Your task to perform on an android device: Show the shopping cart on walmart. Search for macbook pro 15 inch on walmart, select the first entry, and add it to the cart. Image 0: 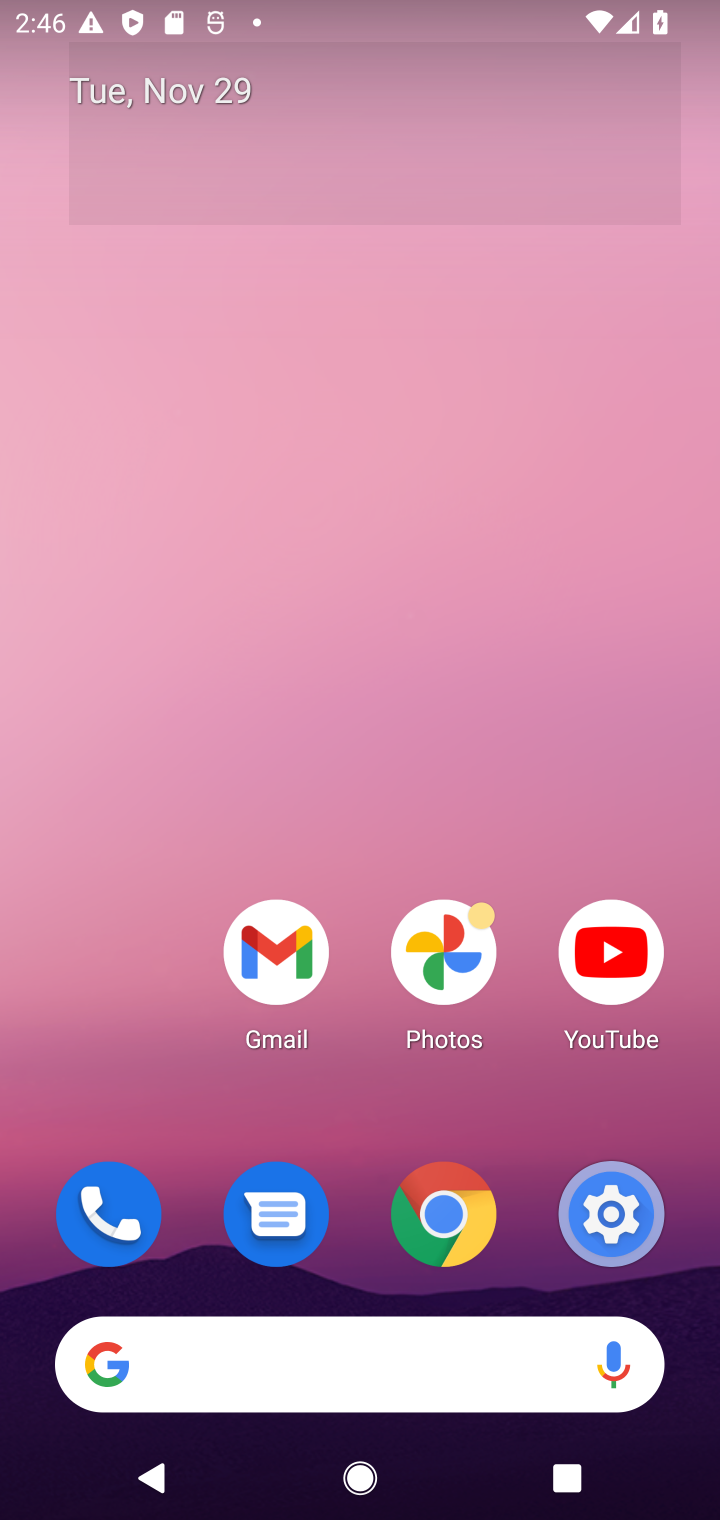
Step 0: click (278, 1337)
Your task to perform on an android device: Show the shopping cart on walmart. Search for macbook pro 15 inch on walmart, select the first entry, and add it to the cart. Image 1: 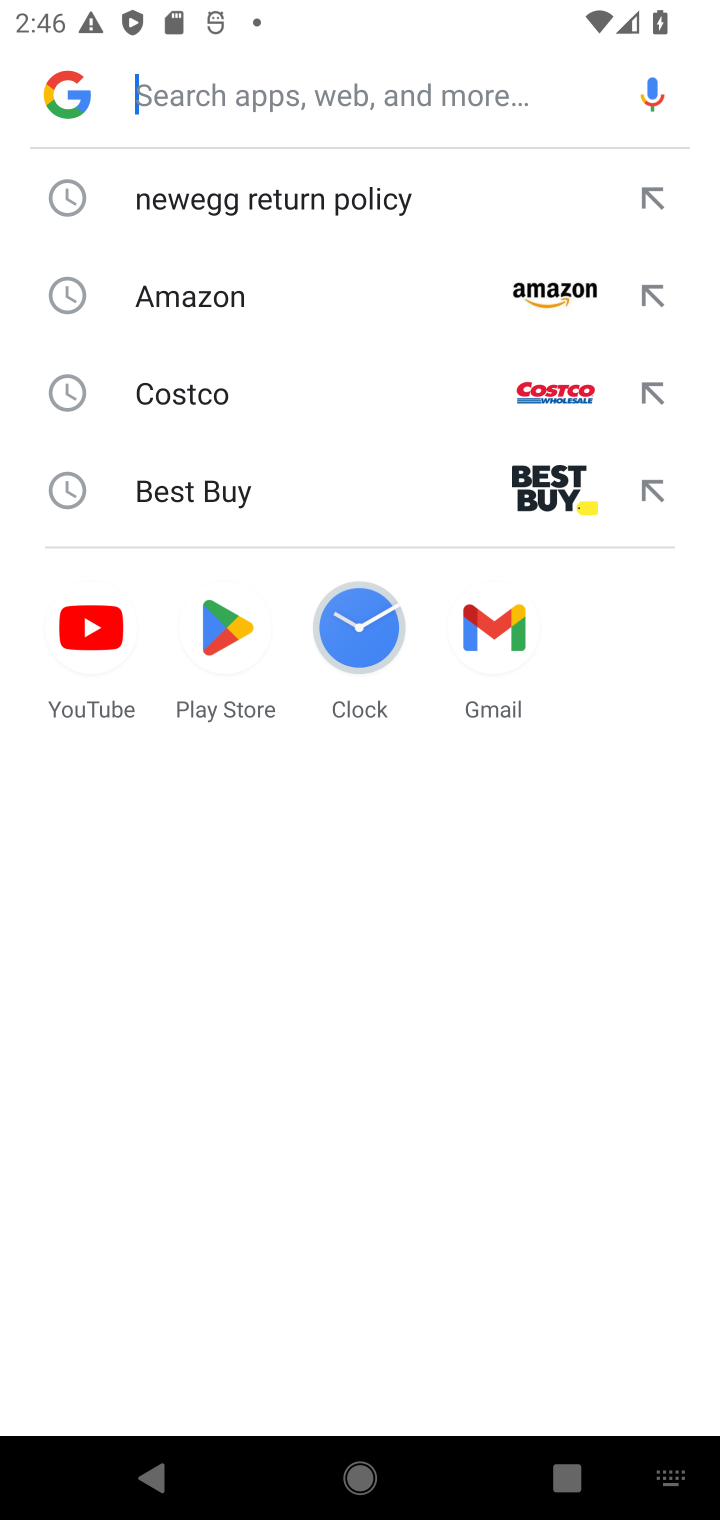
Step 1: type "walmart"
Your task to perform on an android device: Show the shopping cart on walmart. Search for macbook pro 15 inch on walmart, select the first entry, and add it to the cart. Image 2: 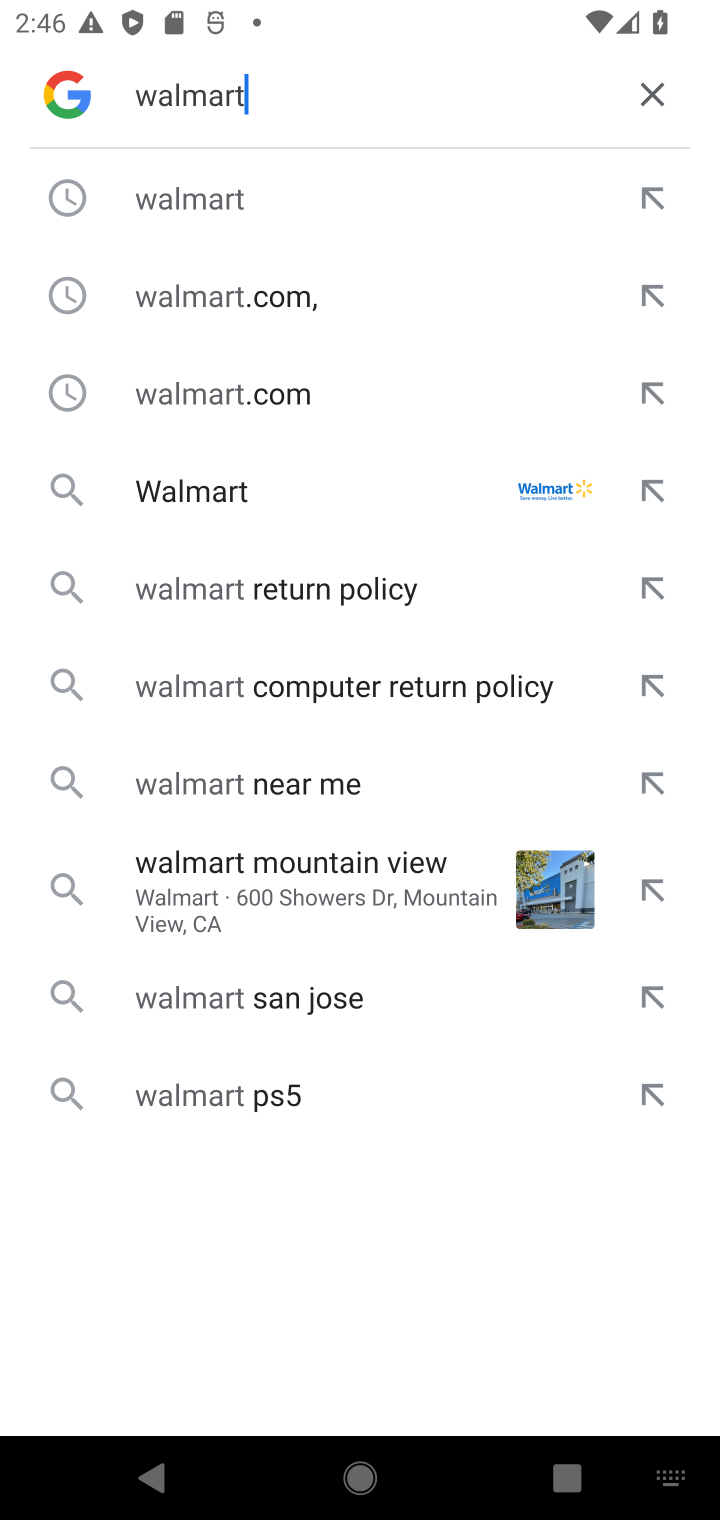
Step 2: click (304, 234)
Your task to perform on an android device: Show the shopping cart on walmart. Search for macbook pro 15 inch on walmart, select the first entry, and add it to the cart. Image 3: 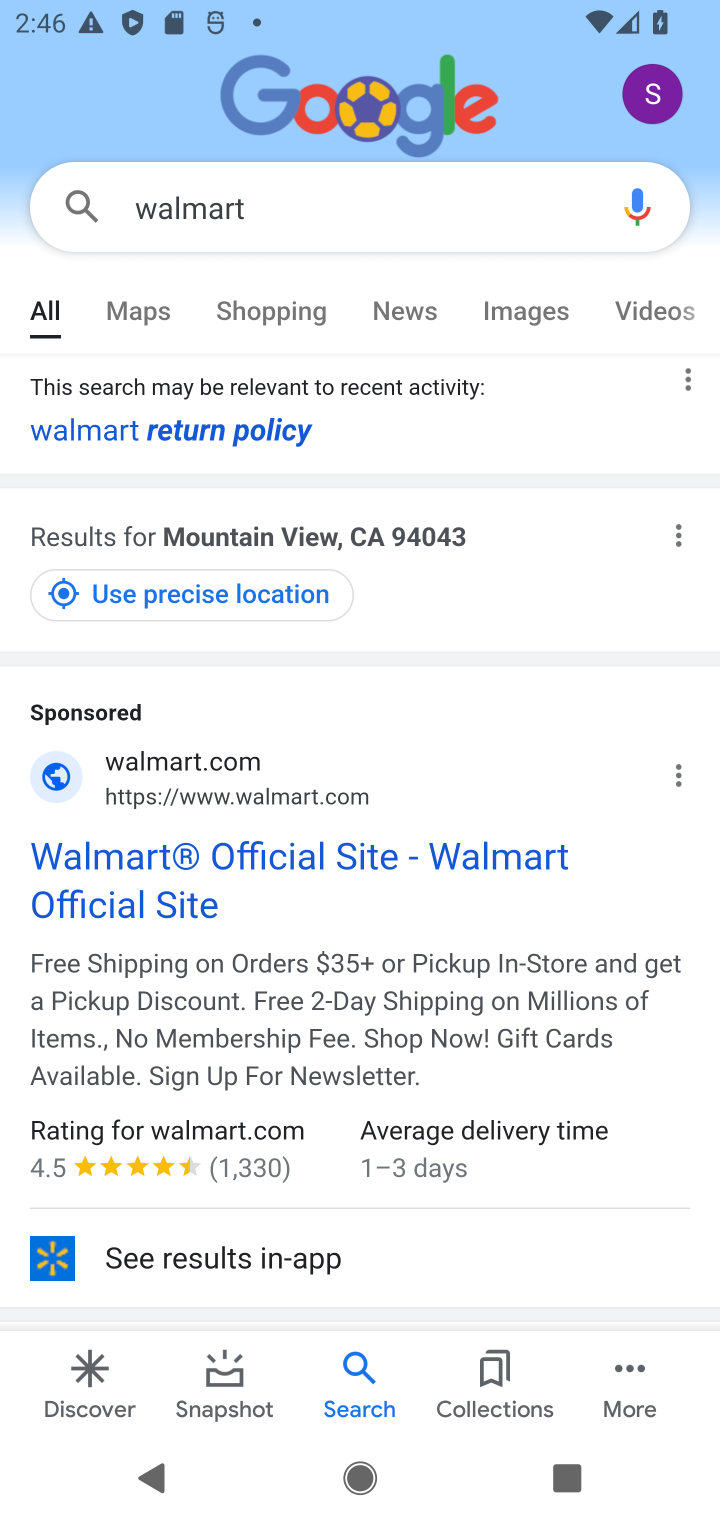
Step 3: click (231, 899)
Your task to perform on an android device: Show the shopping cart on walmart. Search for macbook pro 15 inch on walmart, select the first entry, and add it to the cart. Image 4: 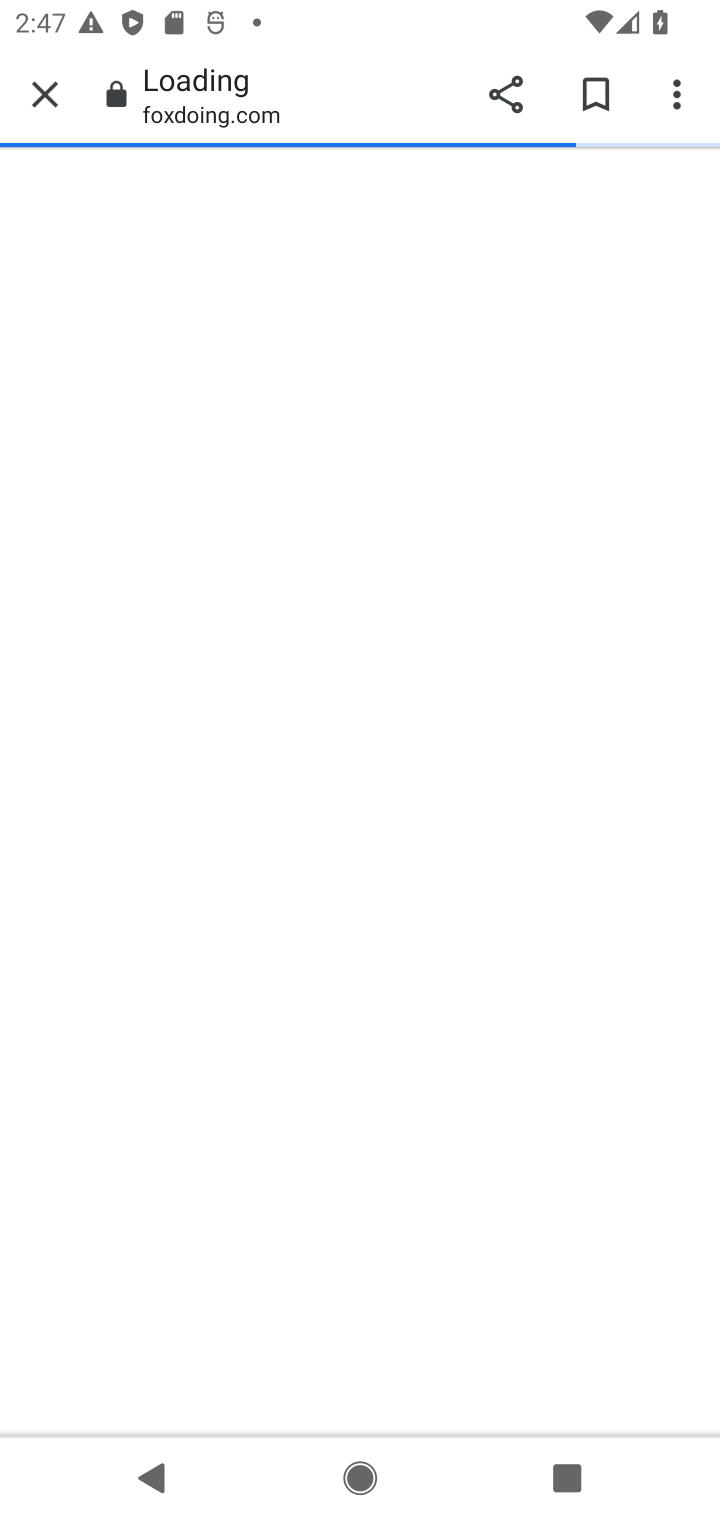
Step 4: task complete